Your task to perform on an android device: open a bookmark in the chrome app Image 0: 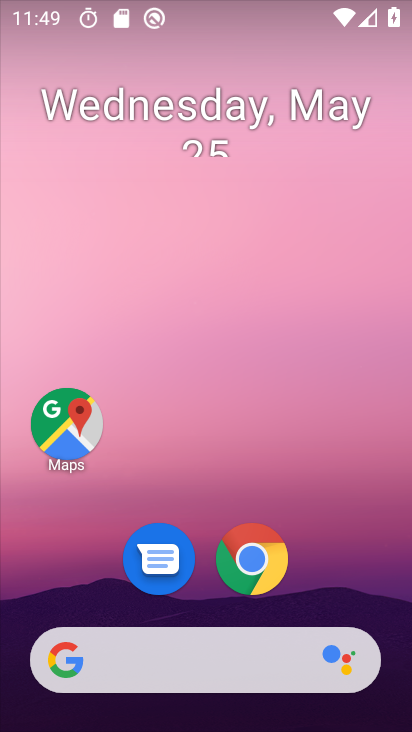
Step 0: press home button
Your task to perform on an android device: open a bookmark in the chrome app Image 1: 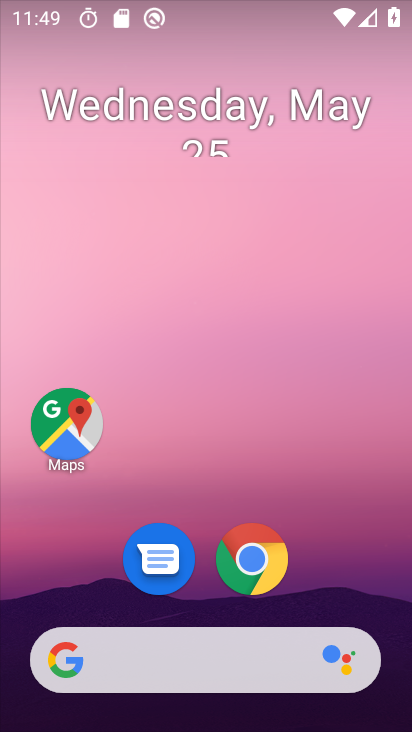
Step 1: drag from (363, 588) to (359, 103)
Your task to perform on an android device: open a bookmark in the chrome app Image 2: 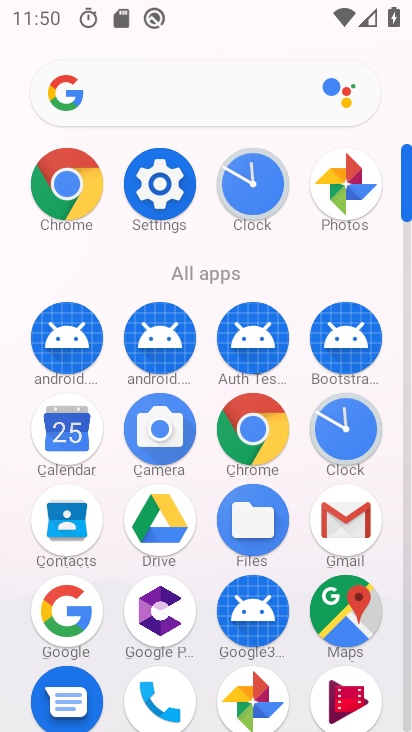
Step 2: click (272, 431)
Your task to perform on an android device: open a bookmark in the chrome app Image 3: 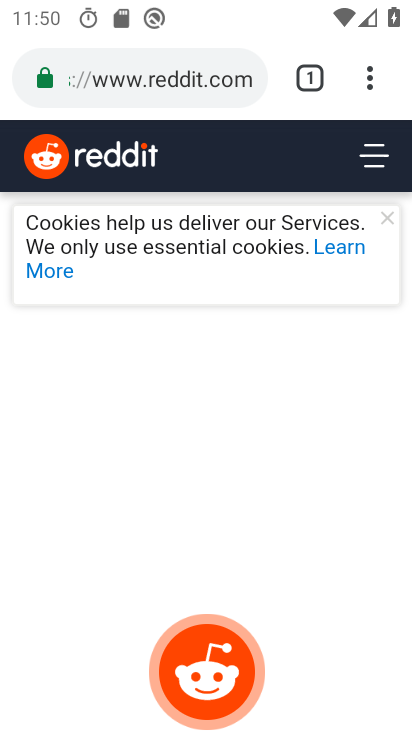
Step 3: task complete